Your task to perform on an android device: delete a single message in the gmail app Image 0: 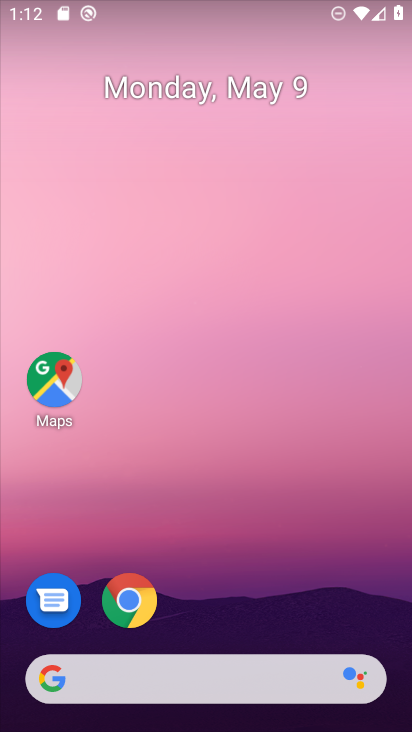
Step 0: drag from (152, 661) to (233, 251)
Your task to perform on an android device: delete a single message in the gmail app Image 1: 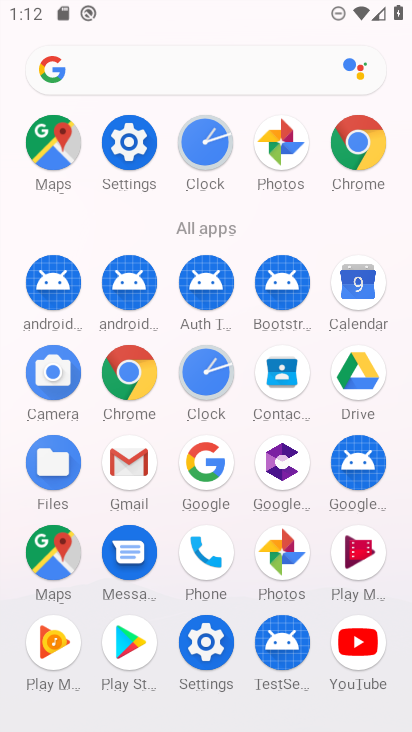
Step 1: click (130, 482)
Your task to perform on an android device: delete a single message in the gmail app Image 2: 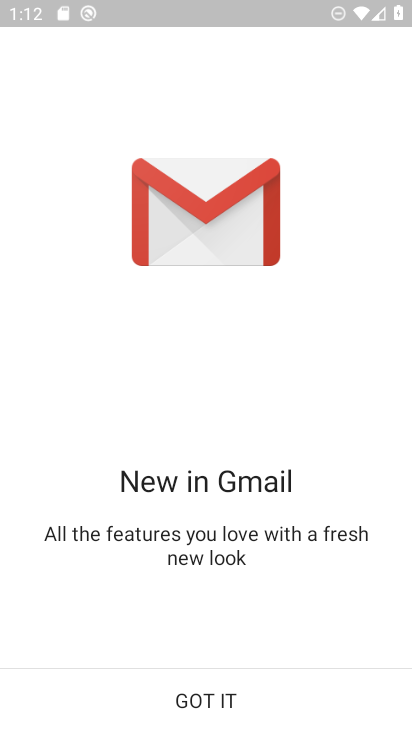
Step 2: click (219, 700)
Your task to perform on an android device: delete a single message in the gmail app Image 3: 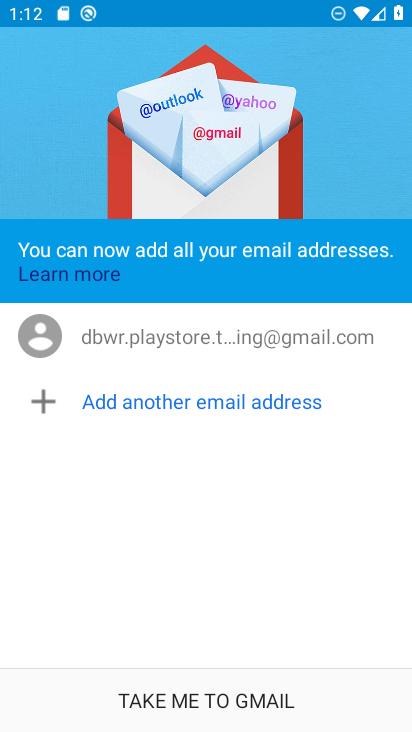
Step 3: click (219, 700)
Your task to perform on an android device: delete a single message in the gmail app Image 4: 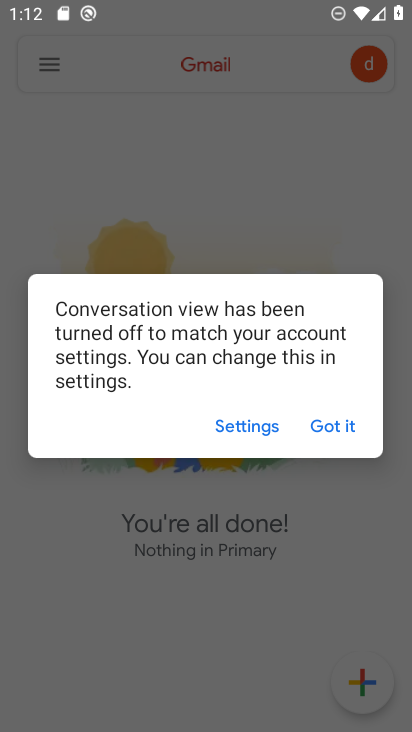
Step 4: click (334, 429)
Your task to perform on an android device: delete a single message in the gmail app Image 5: 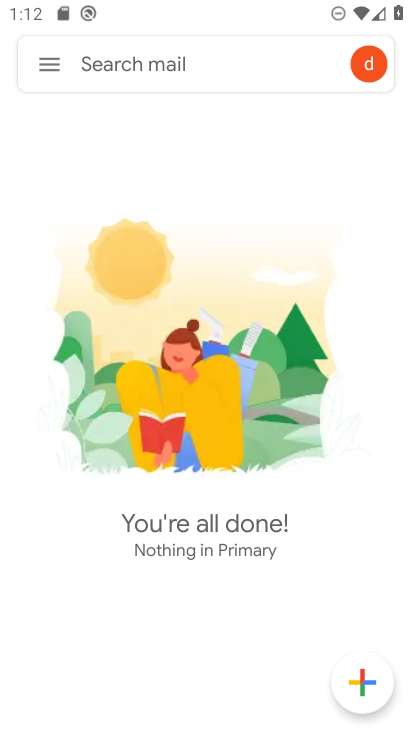
Step 5: task complete